Your task to perform on an android device: Search for pizza restaurants on Maps Image 0: 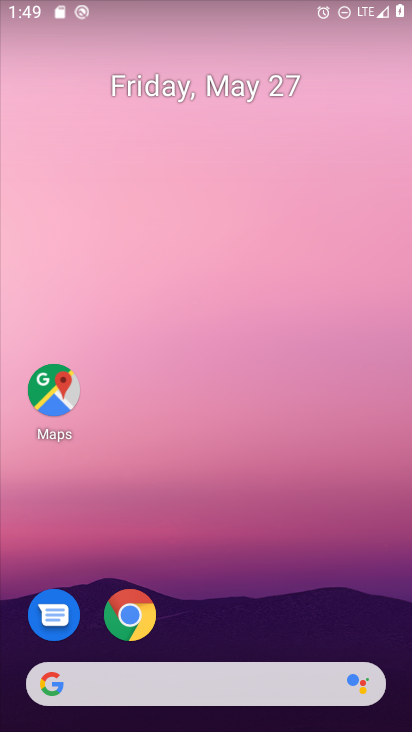
Step 0: drag from (294, 710) to (331, 20)
Your task to perform on an android device: Search for pizza restaurants on Maps Image 1: 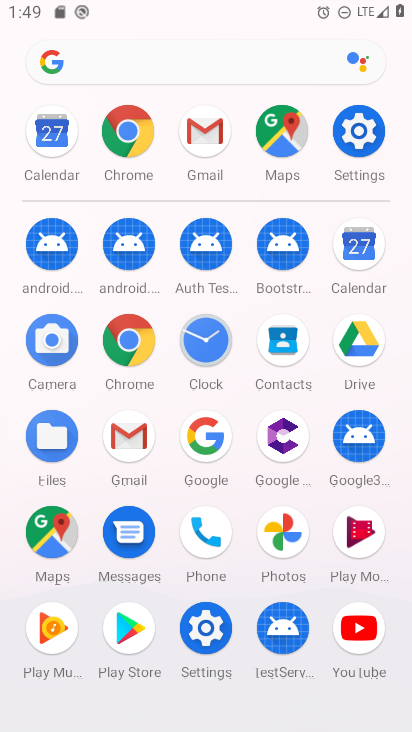
Step 1: click (49, 539)
Your task to perform on an android device: Search for pizza restaurants on Maps Image 2: 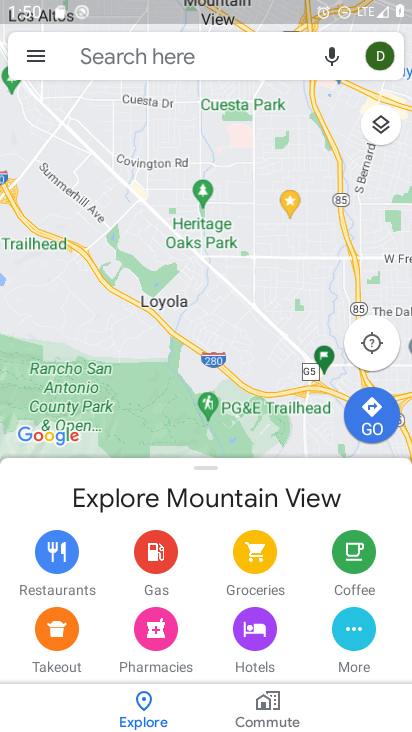
Step 2: click (257, 59)
Your task to perform on an android device: Search for pizza restaurants on Maps Image 3: 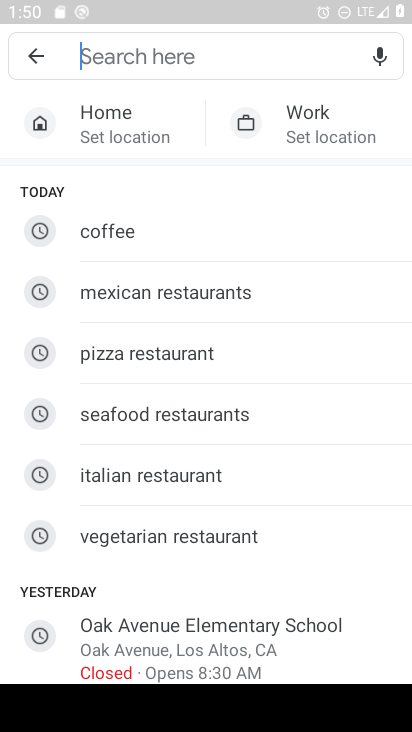
Step 3: click (179, 345)
Your task to perform on an android device: Search for pizza restaurants on Maps Image 4: 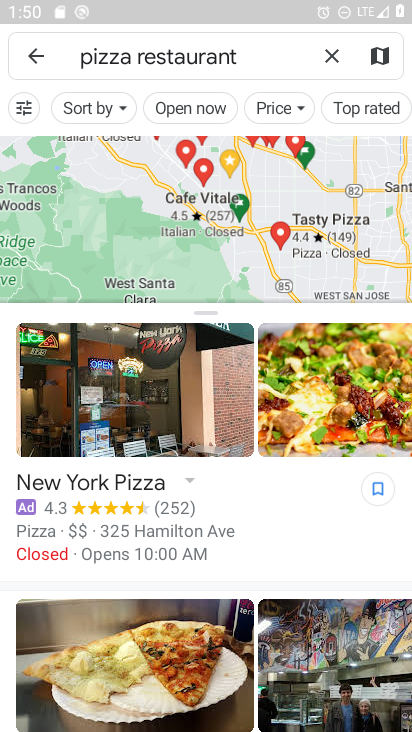
Step 4: task complete